Your task to perform on an android device: manage bookmarks in the chrome app Image 0: 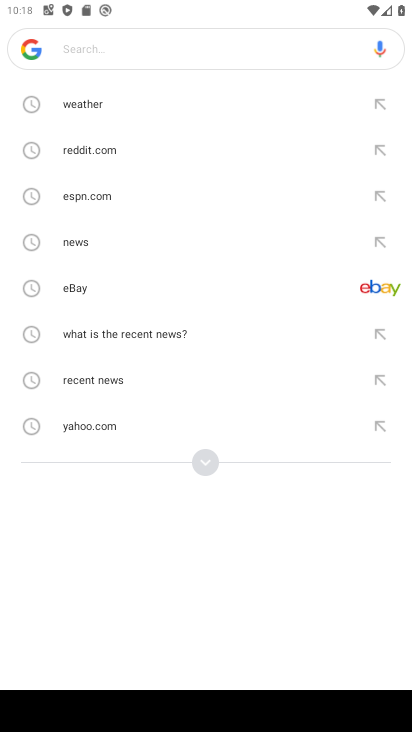
Step 0: press home button
Your task to perform on an android device: manage bookmarks in the chrome app Image 1: 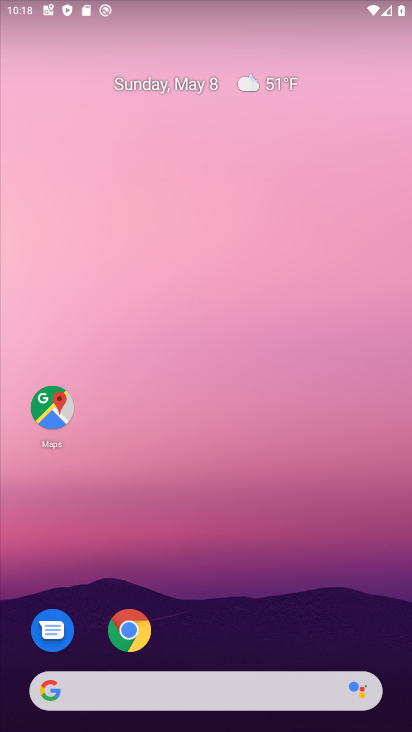
Step 1: drag from (382, 643) to (218, 53)
Your task to perform on an android device: manage bookmarks in the chrome app Image 2: 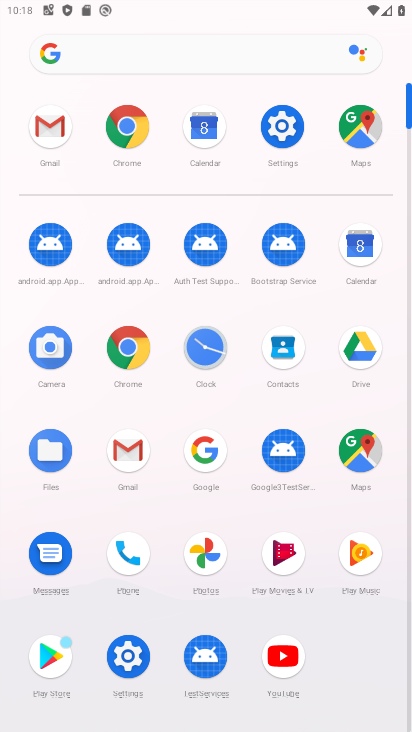
Step 2: click (121, 357)
Your task to perform on an android device: manage bookmarks in the chrome app Image 3: 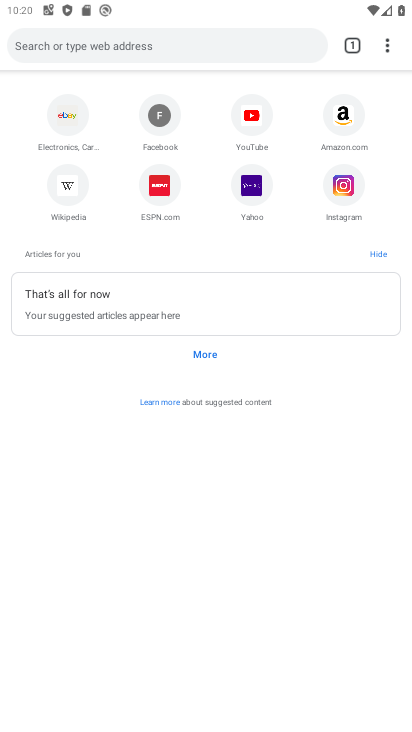
Step 3: task complete